Your task to perform on an android device: Open internet settings Image 0: 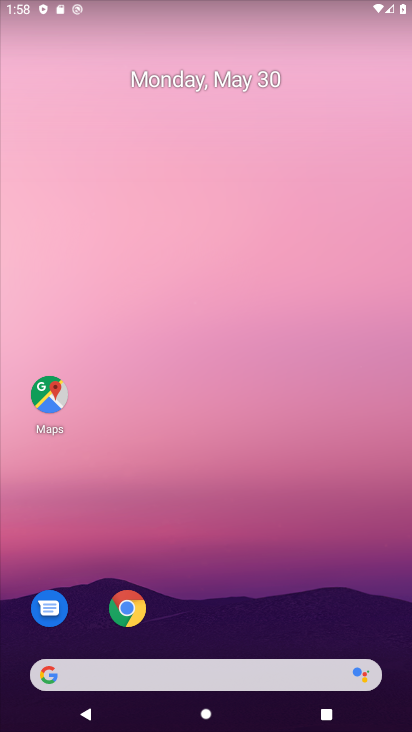
Step 0: drag from (285, 591) to (238, 30)
Your task to perform on an android device: Open internet settings Image 1: 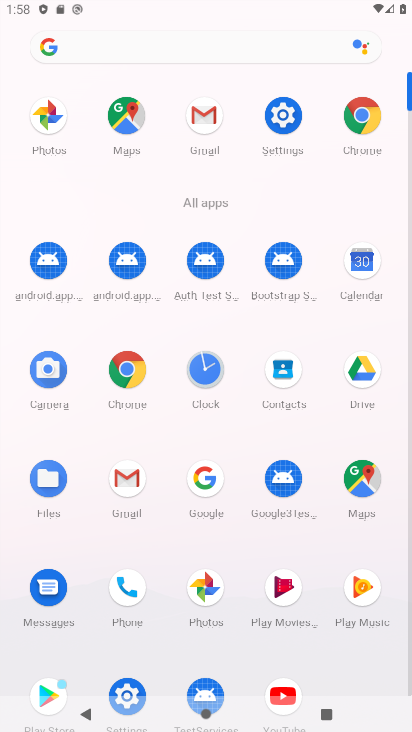
Step 1: click (278, 132)
Your task to perform on an android device: Open internet settings Image 2: 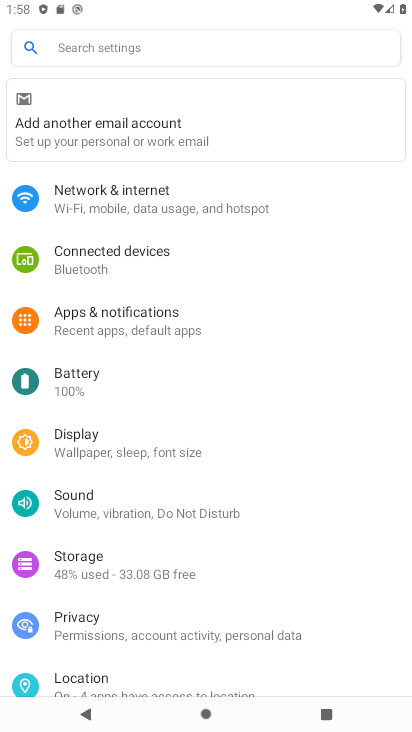
Step 2: click (215, 203)
Your task to perform on an android device: Open internet settings Image 3: 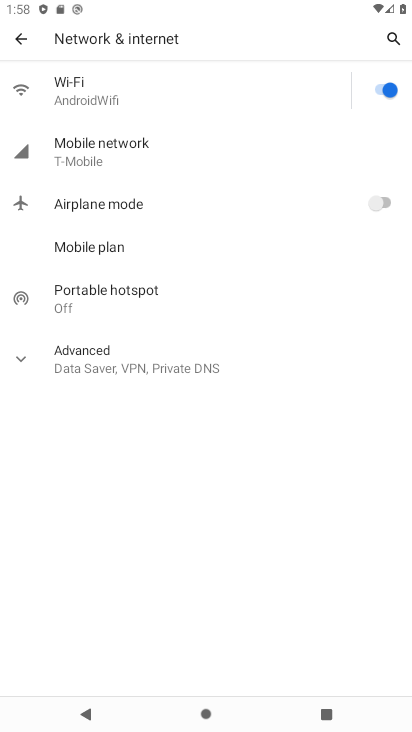
Step 3: click (204, 85)
Your task to perform on an android device: Open internet settings Image 4: 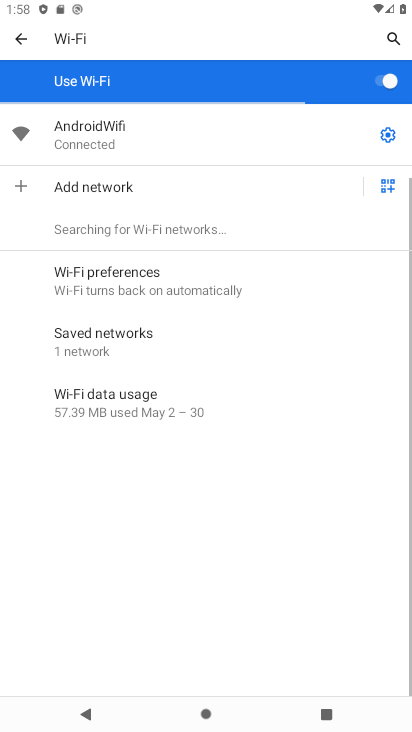
Step 4: task complete